Your task to perform on an android device: set the timer Image 0: 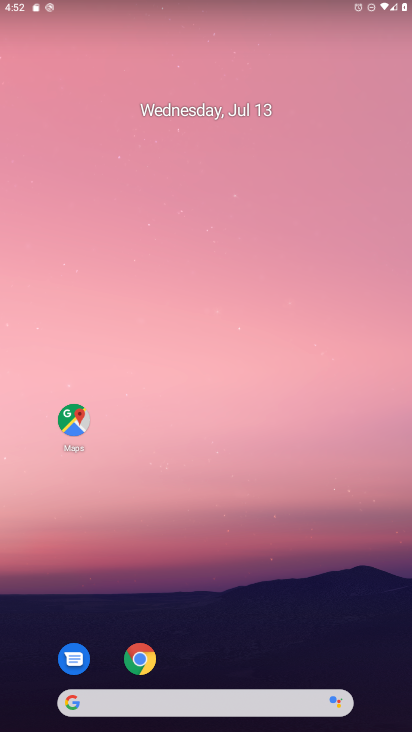
Step 0: drag from (320, 611) to (312, 190)
Your task to perform on an android device: set the timer Image 1: 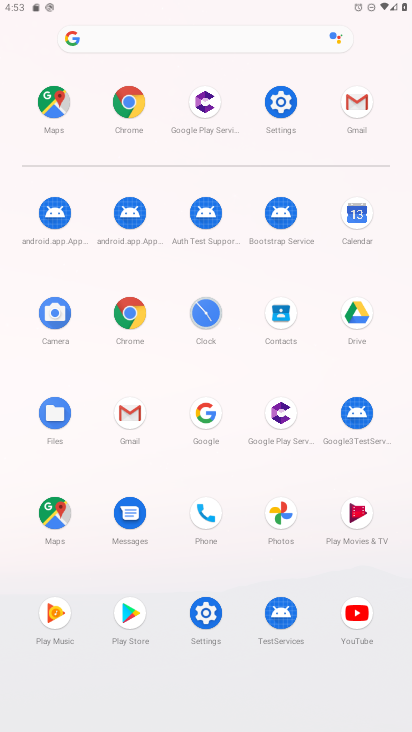
Step 1: click (205, 311)
Your task to perform on an android device: set the timer Image 2: 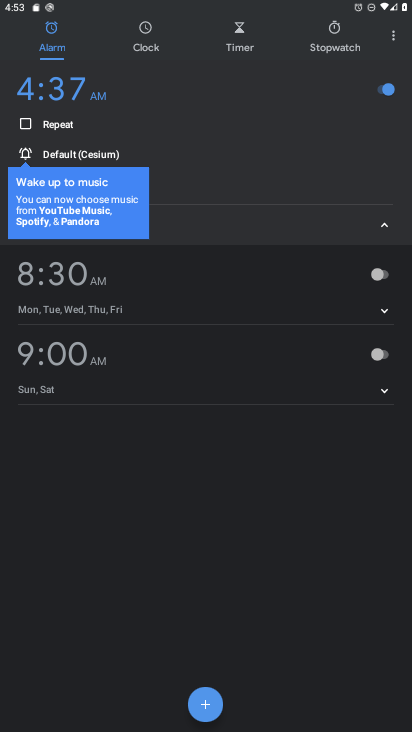
Step 2: click (245, 33)
Your task to perform on an android device: set the timer Image 3: 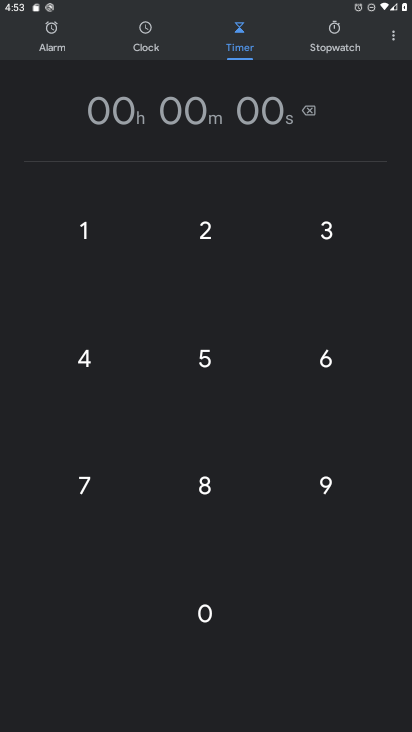
Step 3: click (200, 372)
Your task to perform on an android device: set the timer Image 4: 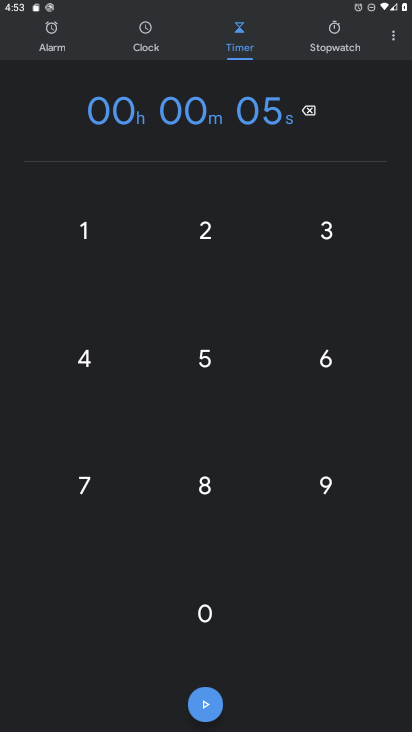
Step 4: task complete